Your task to perform on an android device: turn off notifications settings in the gmail app Image 0: 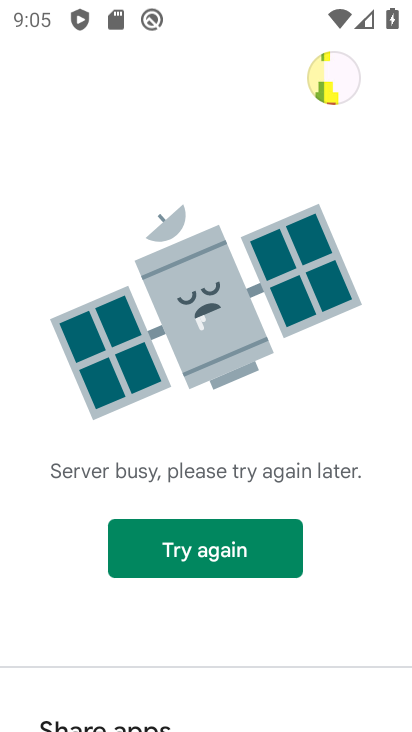
Step 0: press home button
Your task to perform on an android device: turn off notifications settings in the gmail app Image 1: 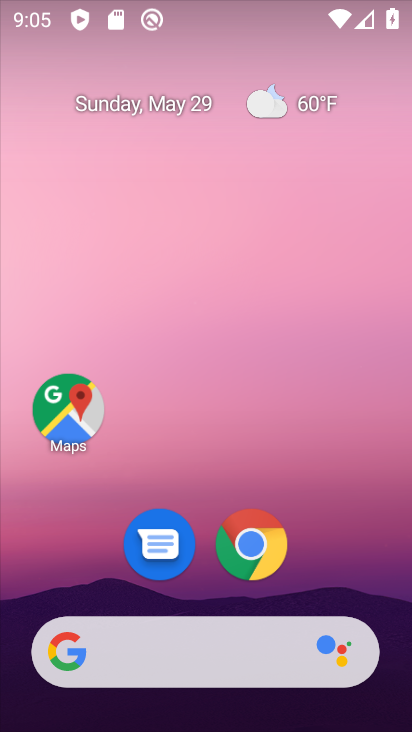
Step 1: drag from (352, 559) to (387, 76)
Your task to perform on an android device: turn off notifications settings in the gmail app Image 2: 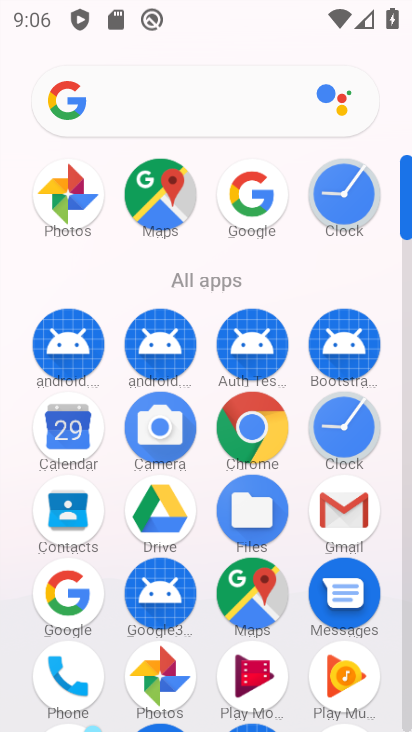
Step 2: click (329, 512)
Your task to perform on an android device: turn off notifications settings in the gmail app Image 3: 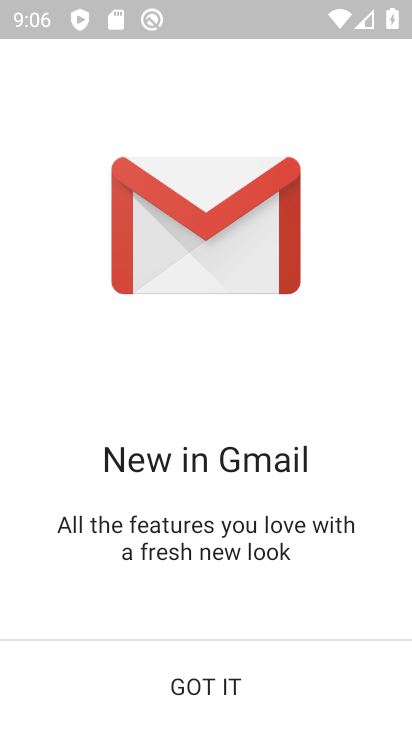
Step 3: click (177, 686)
Your task to perform on an android device: turn off notifications settings in the gmail app Image 4: 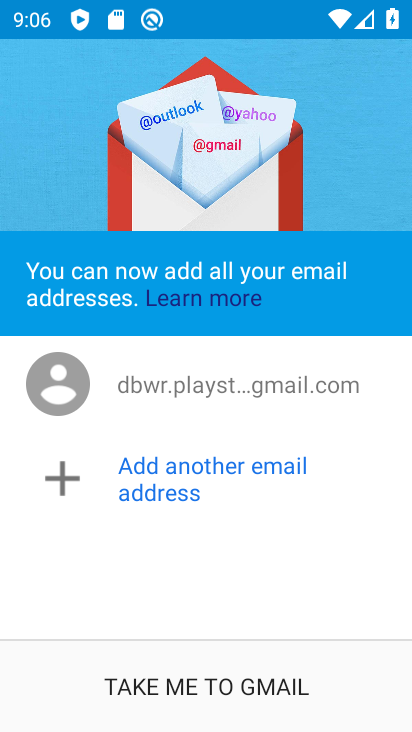
Step 4: click (209, 675)
Your task to perform on an android device: turn off notifications settings in the gmail app Image 5: 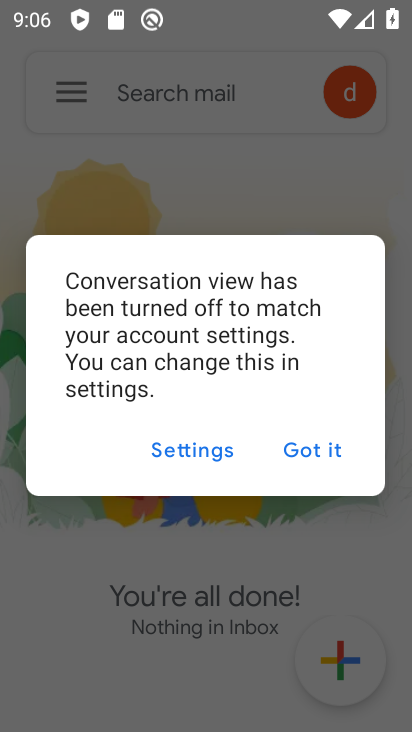
Step 5: click (202, 453)
Your task to perform on an android device: turn off notifications settings in the gmail app Image 6: 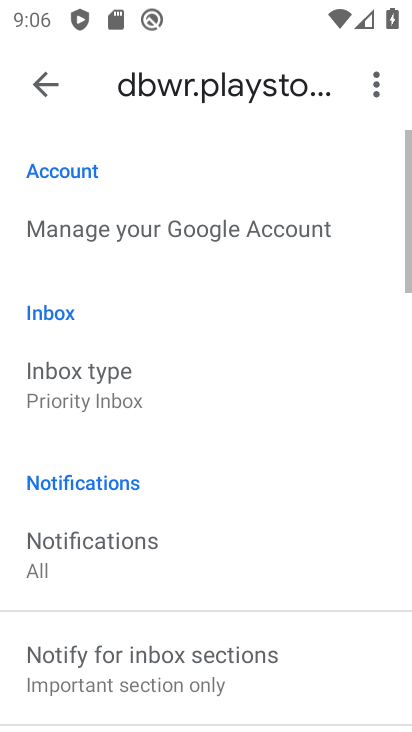
Step 6: click (145, 542)
Your task to perform on an android device: turn off notifications settings in the gmail app Image 7: 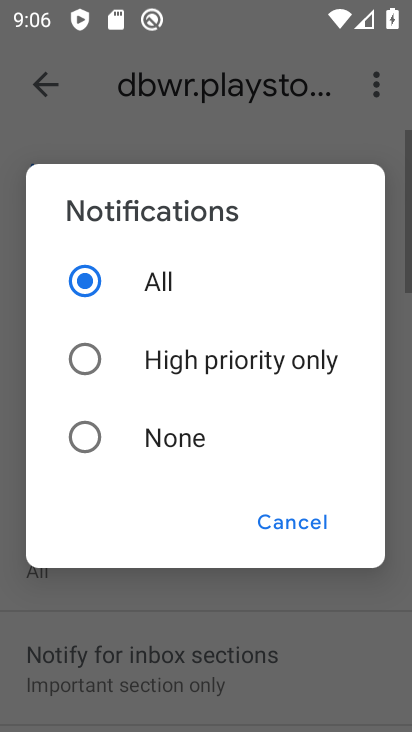
Step 7: click (77, 446)
Your task to perform on an android device: turn off notifications settings in the gmail app Image 8: 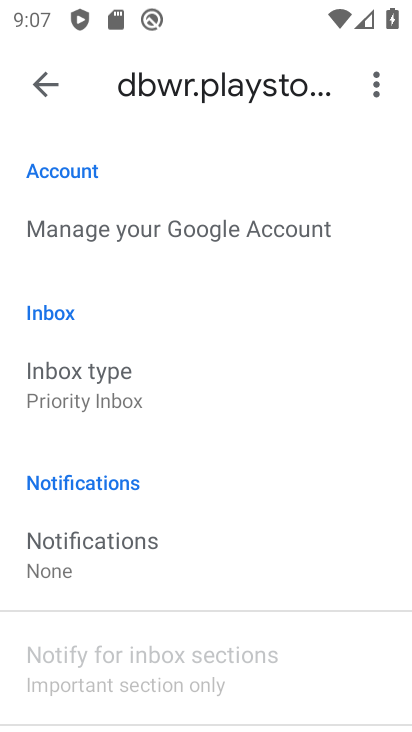
Step 8: task complete